Your task to perform on an android device: toggle javascript in the chrome app Image 0: 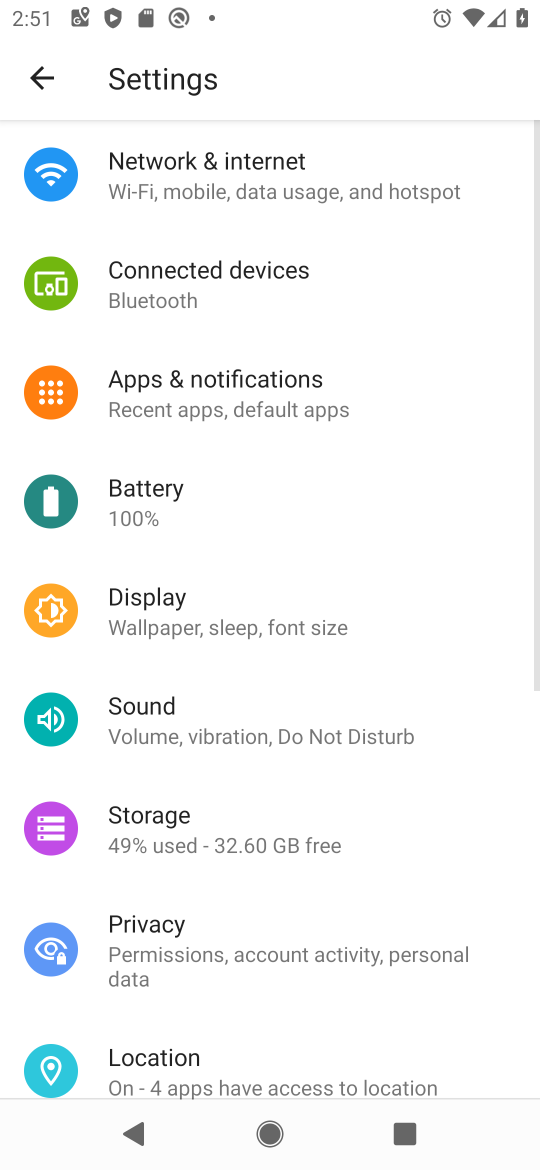
Step 0: press home button
Your task to perform on an android device: toggle javascript in the chrome app Image 1: 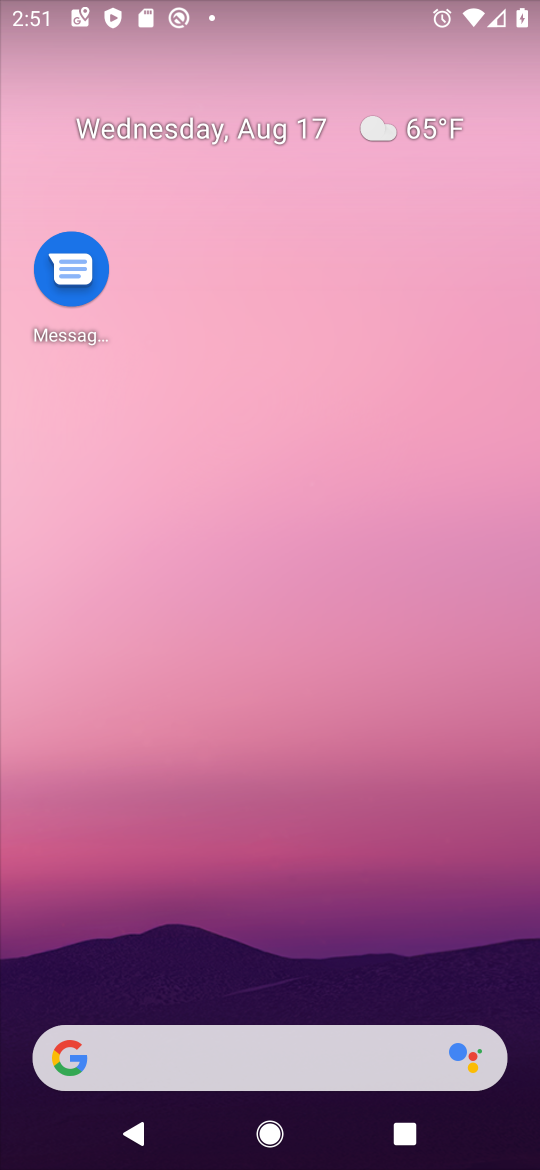
Step 1: drag from (246, 887) to (60, 36)
Your task to perform on an android device: toggle javascript in the chrome app Image 2: 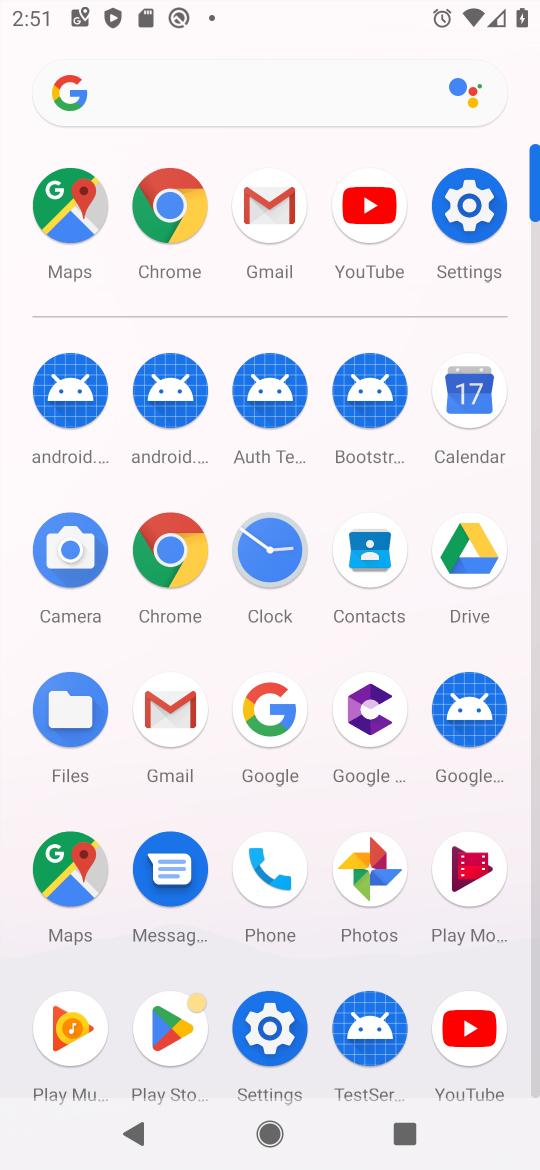
Step 2: click (162, 232)
Your task to perform on an android device: toggle javascript in the chrome app Image 3: 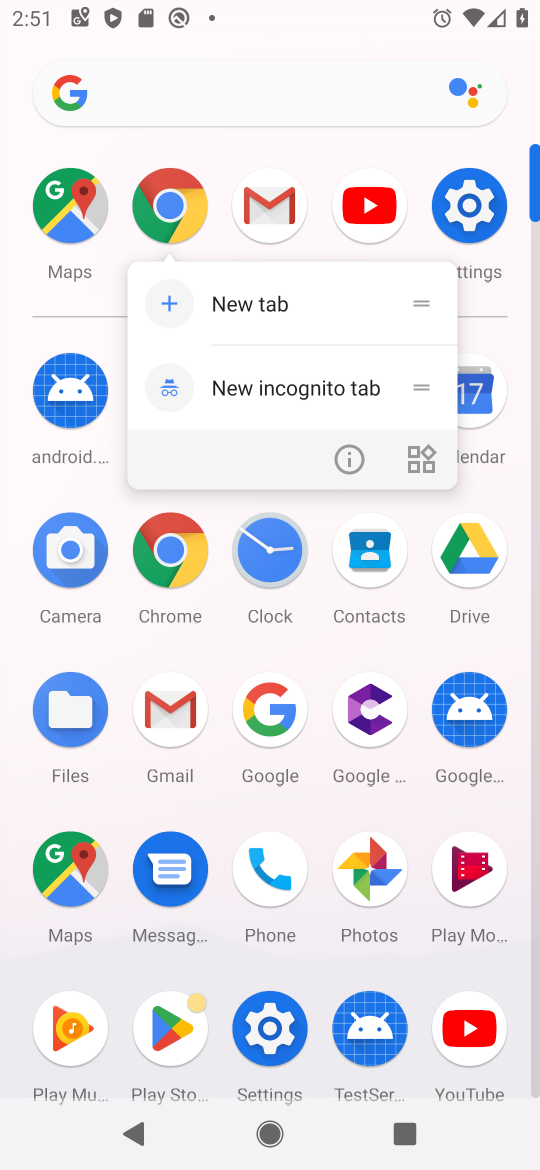
Step 3: click (175, 196)
Your task to perform on an android device: toggle javascript in the chrome app Image 4: 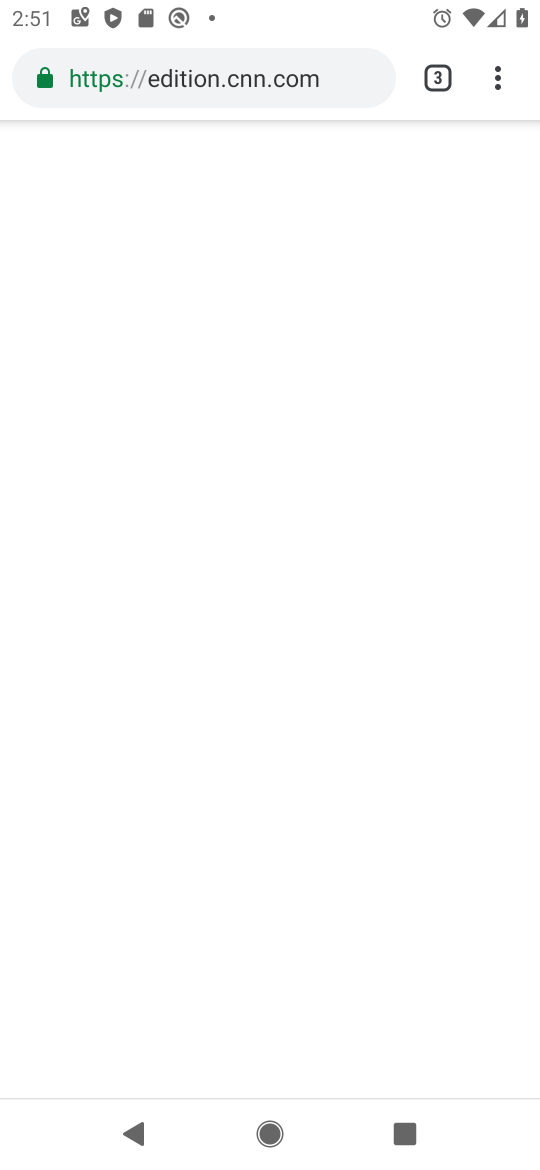
Step 4: drag from (506, 73) to (229, 967)
Your task to perform on an android device: toggle javascript in the chrome app Image 5: 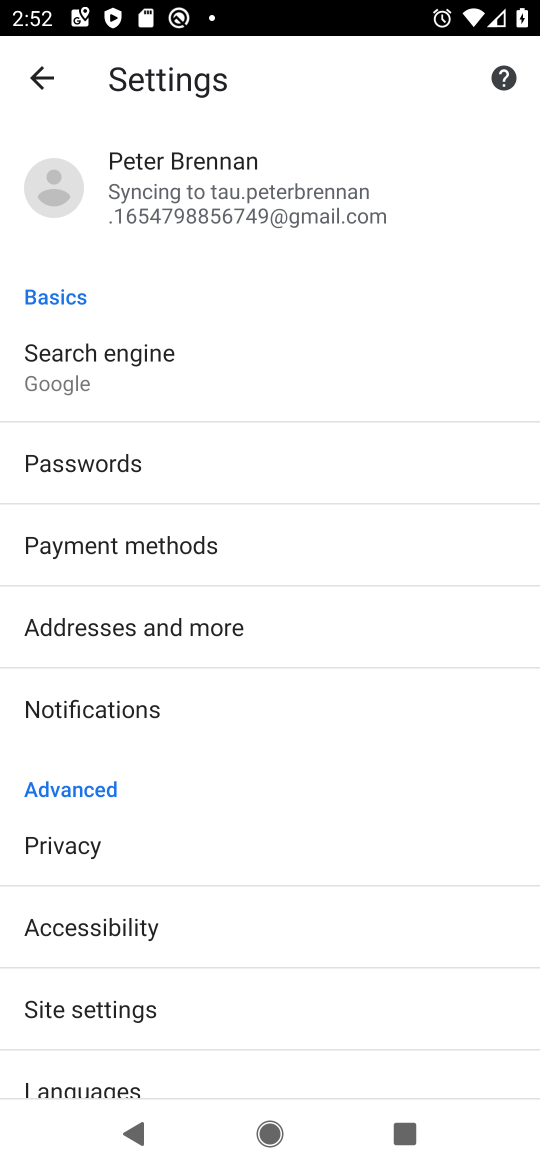
Step 5: drag from (48, 923) to (77, 202)
Your task to perform on an android device: toggle javascript in the chrome app Image 6: 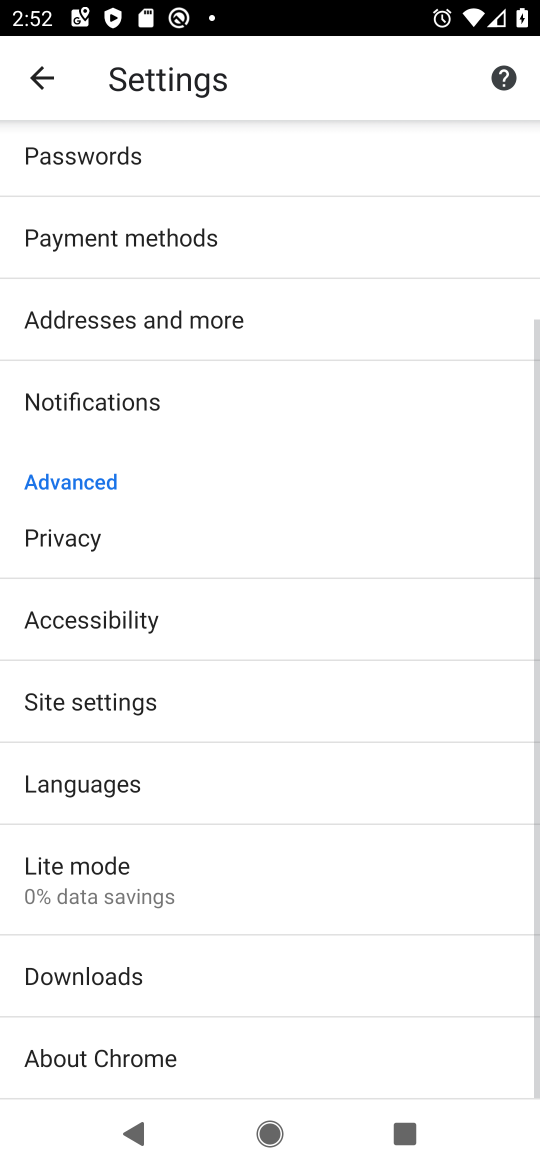
Step 6: click (142, 711)
Your task to perform on an android device: toggle javascript in the chrome app Image 7: 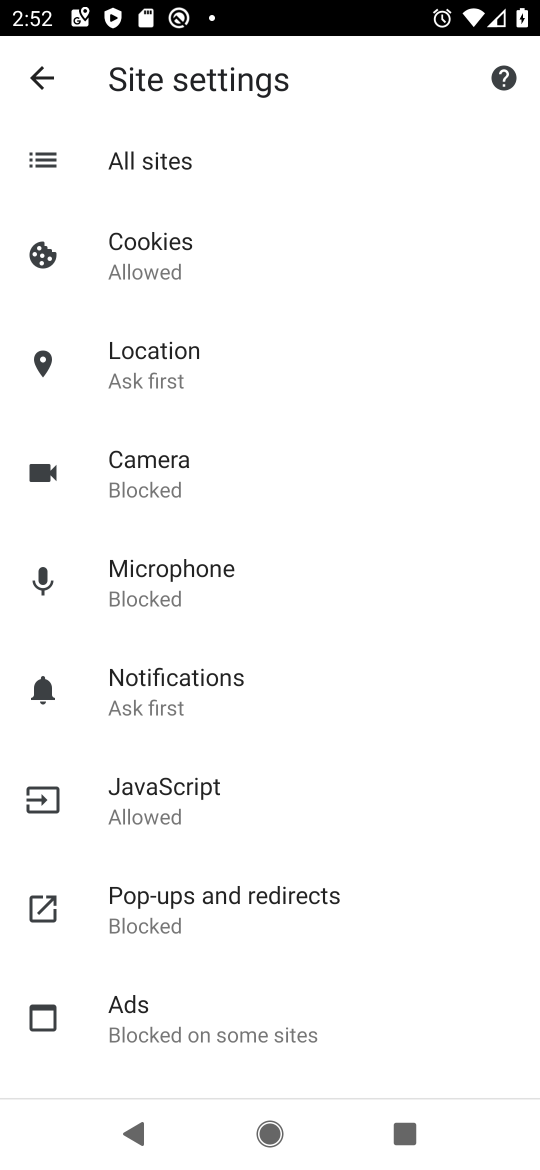
Step 7: click (205, 814)
Your task to perform on an android device: toggle javascript in the chrome app Image 8: 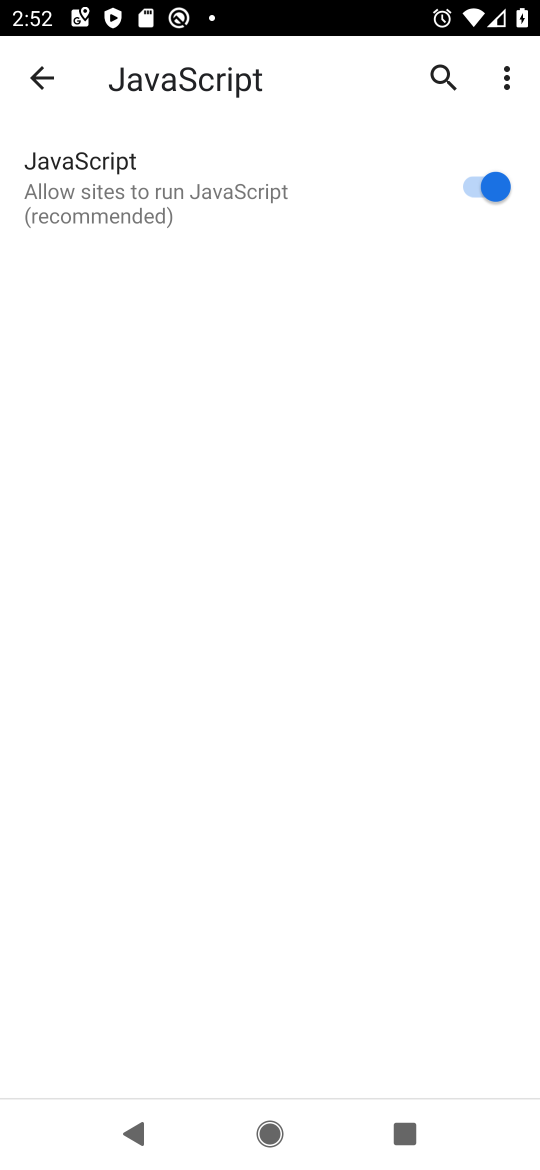
Step 8: click (485, 171)
Your task to perform on an android device: toggle javascript in the chrome app Image 9: 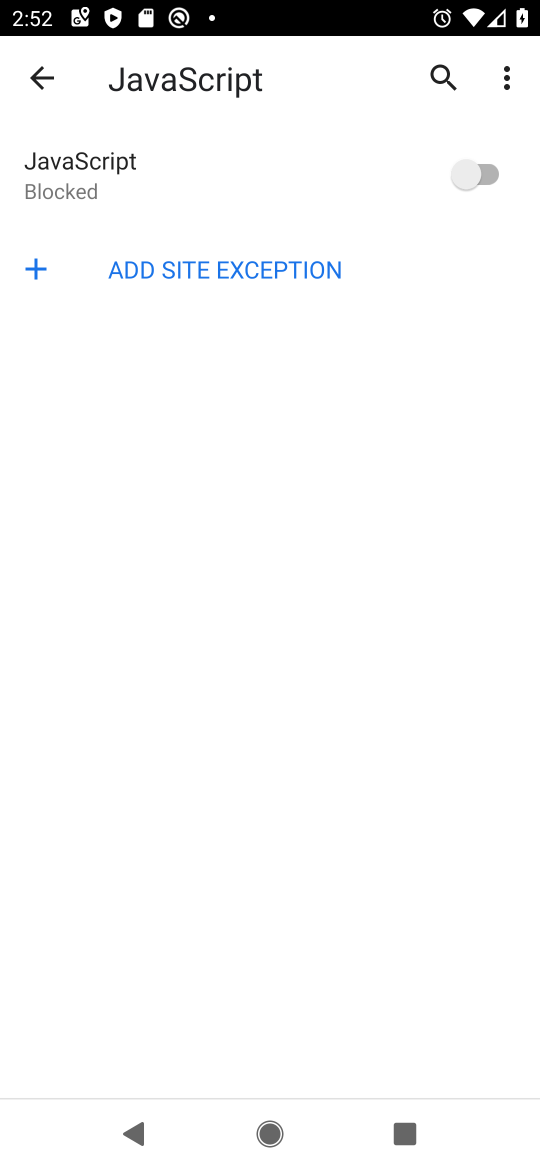
Step 9: task complete